Your task to perform on an android device: Add corsair k70 to the cart on amazon.com, then select checkout. Image 0: 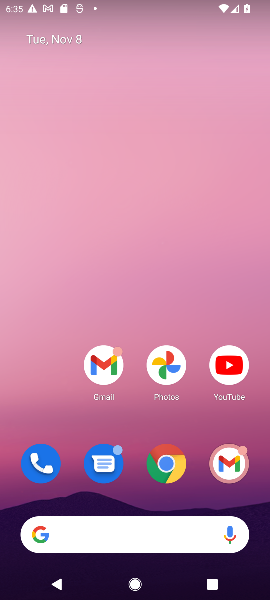
Step 0: click (165, 460)
Your task to perform on an android device: Add corsair k70 to the cart on amazon.com, then select checkout. Image 1: 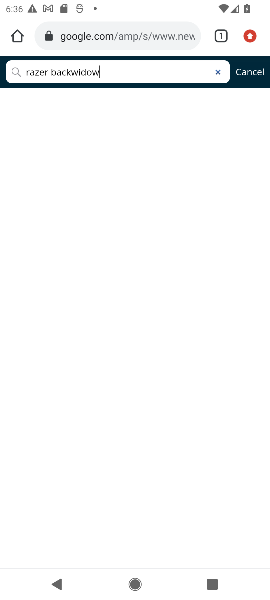
Step 1: click (72, 34)
Your task to perform on an android device: Add corsair k70 to the cart on amazon.com, then select checkout. Image 2: 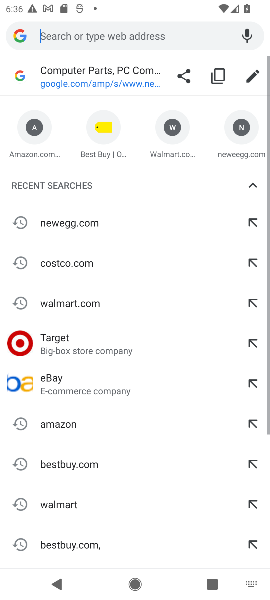
Step 2: click (72, 34)
Your task to perform on an android device: Add corsair k70 to the cart on amazon.com, then select checkout. Image 3: 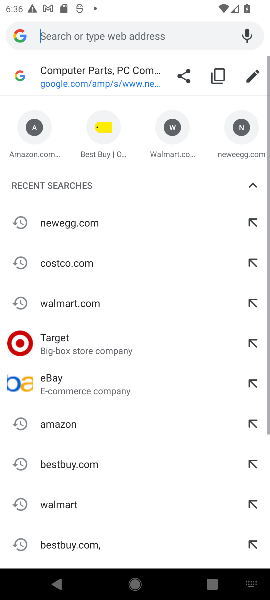
Step 3: click (72, 34)
Your task to perform on an android device: Add corsair k70 to the cart on amazon.com, then select checkout. Image 4: 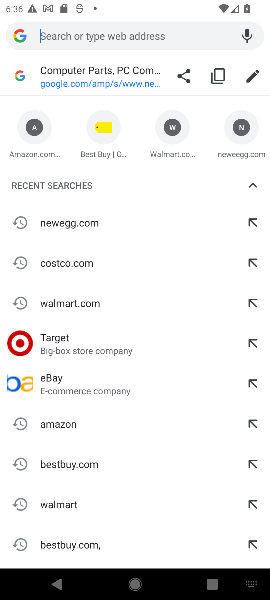
Step 4: click (52, 424)
Your task to perform on an android device: Add corsair k70 to the cart on amazon.com, then select checkout. Image 5: 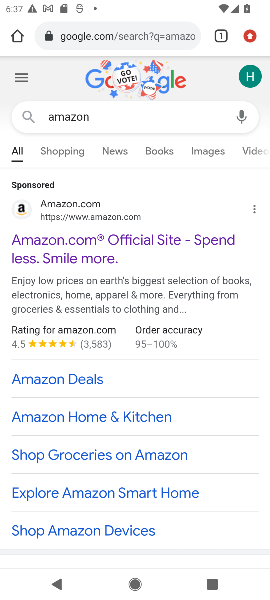
Step 5: click (31, 240)
Your task to perform on an android device: Add corsair k70 to the cart on amazon.com, then select checkout. Image 6: 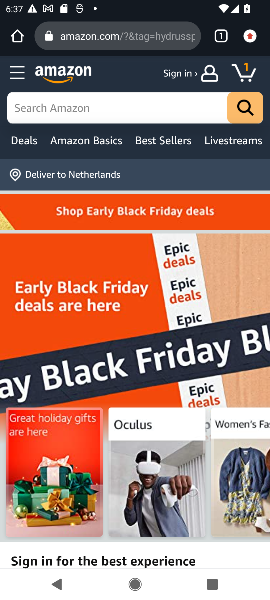
Step 6: click (167, 109)
Your task to perform on an android device: Add corsair k70 to the cart on amazon.com, then select checkout. Image 7: 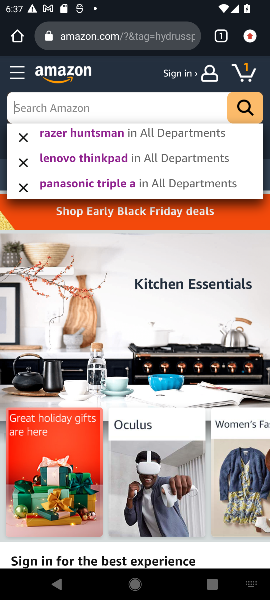
Step 7: type "corsair k70"
Your task to perform on an android device: Add corsair k70 to the cart on amazon.com, then select checkout. Image 8: 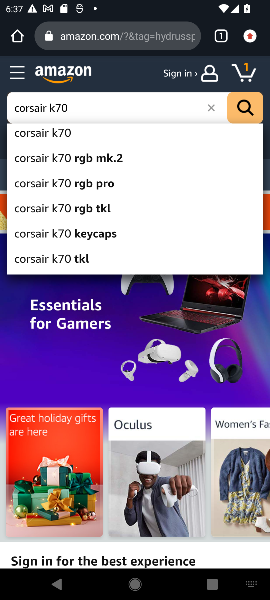
Step 8: click (246, 115)
Your task to perform on an android device: Add corsair k70 to the cart on amazon.com, then select checkout. Image 9: 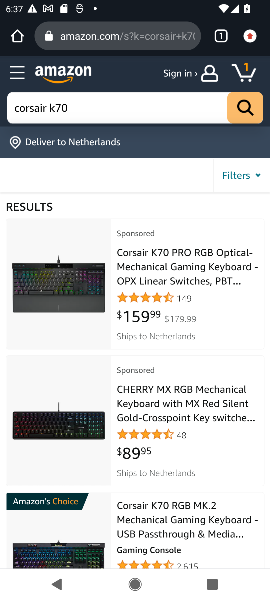
Step 9: click (242, 103)
Your task to perform on an android device: Add corsair k70 to the cart on amazon.com, then select checkout. Image 10: 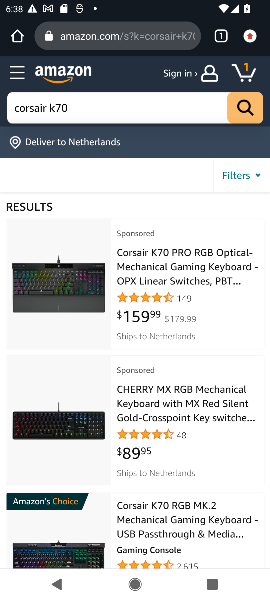
Step 10: click (179, 246)
Your task to perform on an android device: Add corsair k70 to the cart on amazon.com, then select checkout. Image 11: 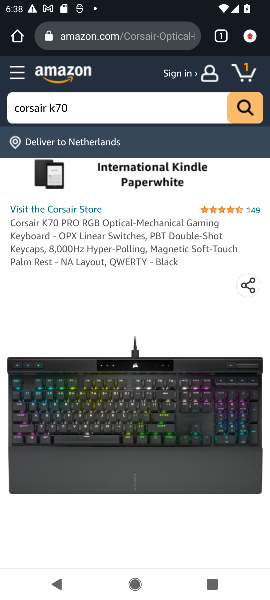
Step 11: drag from (134, 546) to (123, 152)
Your task to perform on an android device: Add corsair k70 to the cart on amazon.com, then select checkout. Image 12: 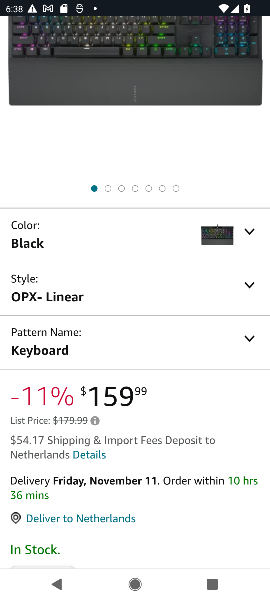
Step 12: drag from (134, 500) to (156, 126)
Your task to perform on an android device: Add corsair k70 to the cart on amazon.com, then select checkout. Image 13: 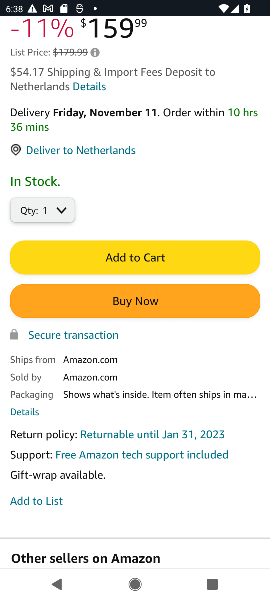
Step 13: click (101, 261)
Your task to perform on an android device: Add corsair k70 to the cart on amazon.com, then select checkout. Image 14: 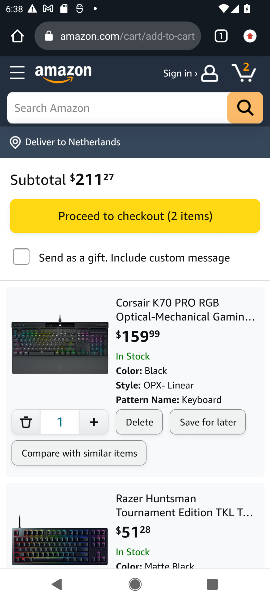
Step 14: click (161, 214)
Your task to perform on an android device: Add corsair k70 to the cart on amazon.com, then select checkout. Image 15: 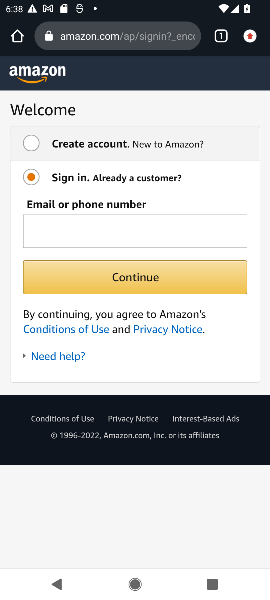
Step 15: task complete